Your task to perform on an android device: Go to network settings Image 0: 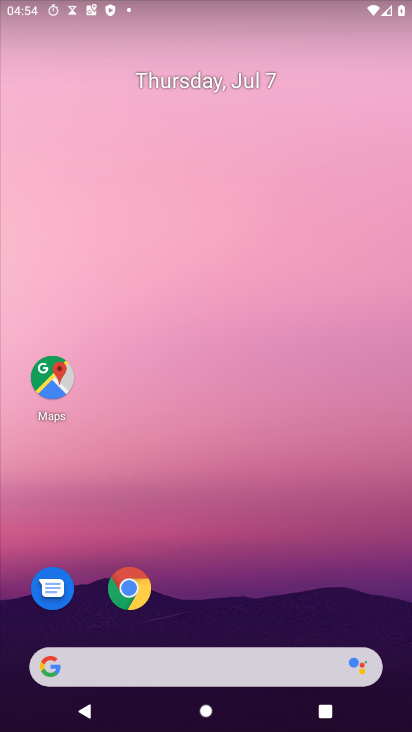
Step 0: press home button
Your task to perform on an android device: Go to network settings Image 1: 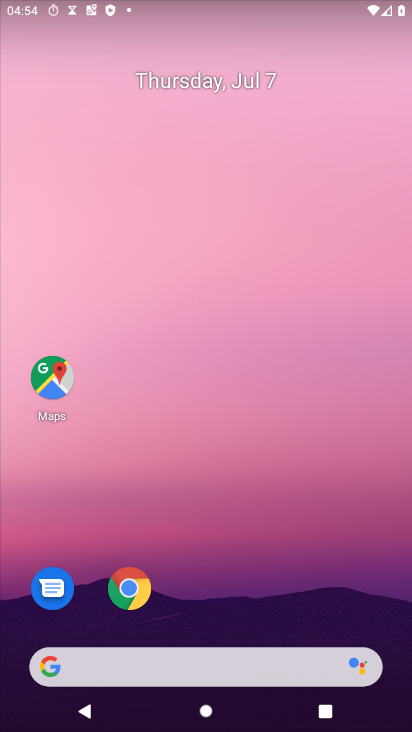
Step 1: drag from (239, 623) to (177, 148)
Your task to perform on an android device: Go to network settings Image 2: 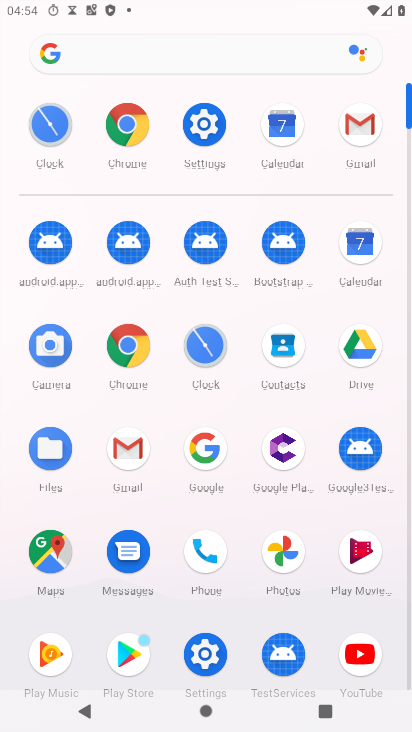
Step 2: click (202, 131)
Your task to perform on an android device: Go to network settings Image 3: 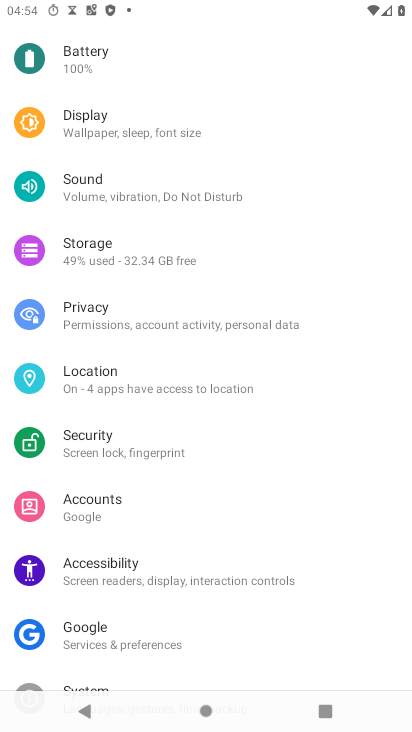
Step 3: drag from (324, 99) to (379, 457)
Your task to perform on an android device: Go to network settings Image 4: 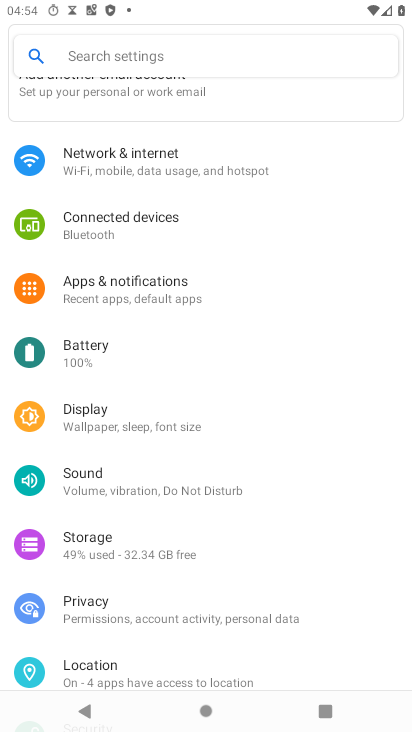
Step 4: click (123, 157)
Your task to perform on an android device: Go to network settings Image 5: 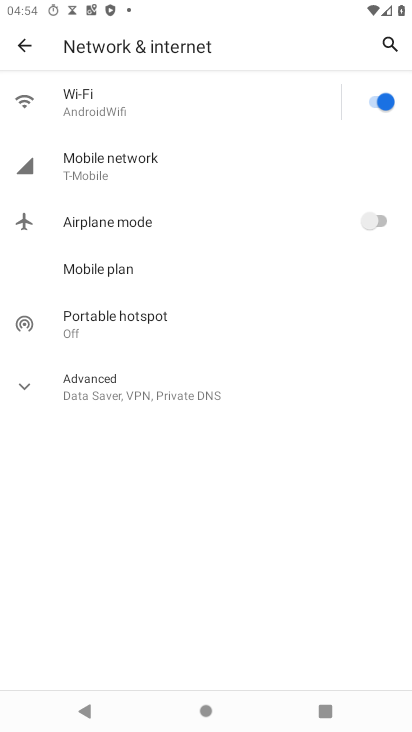
Step 5: task complete